Your task to perform on an android device: Show me popular games on the Play Store Image 0: 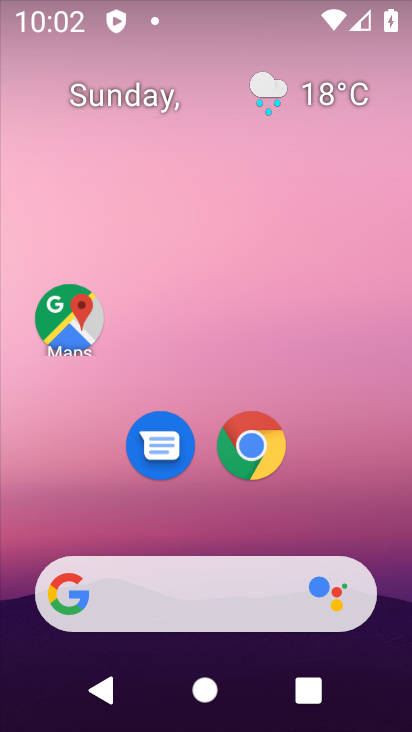
Step 0: press home button
Your task to perform on an android device: Show me popular games on the Play Store Image 1: 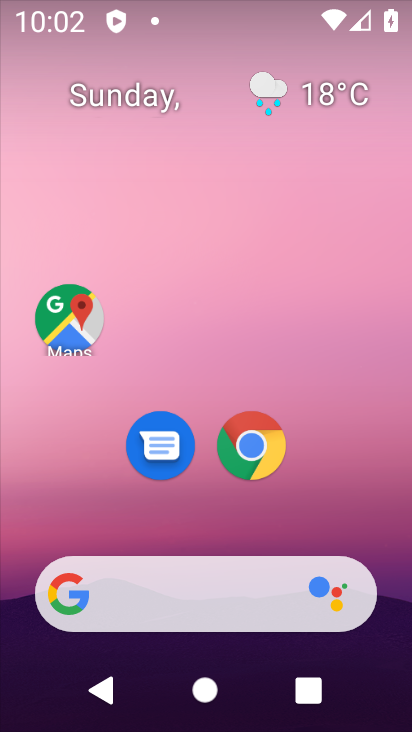
Step 1: drag from (204, 521) to (209, 12)
Your task to perform on an android device: Show me popular games on the Play Store Image 2: 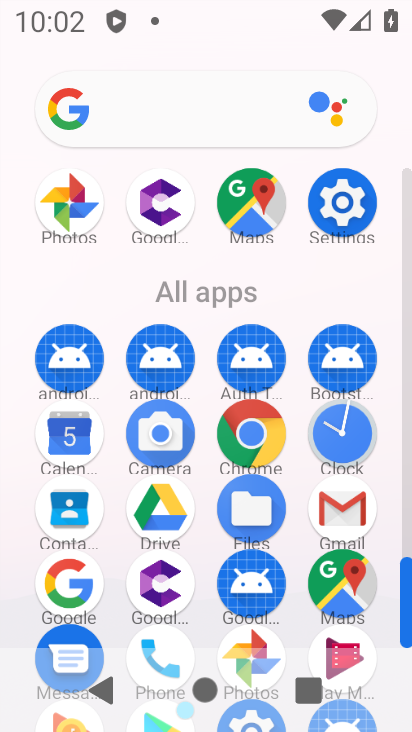
Step 2: drag from (205, 608) to (210, 217)
Your task to perform on an android device: Show me popular games on the Play Store Image 3: 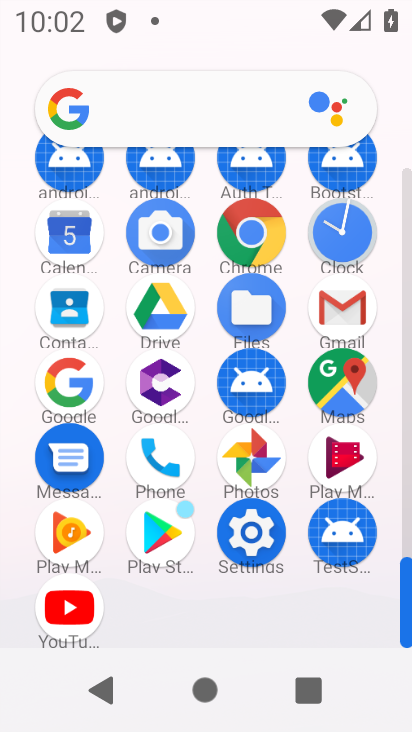
Step 3: click (141, 533)
Your task to perform on an android device: Show me popular games on the Play Store Image 4: 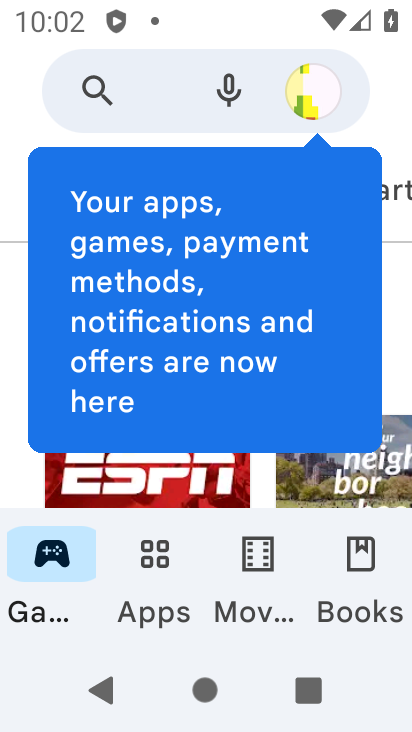
Step 4: drag from (44, 97) to (45, 0)
Your task to perform on an android device: Show me popular games on the Play Store Image 5: 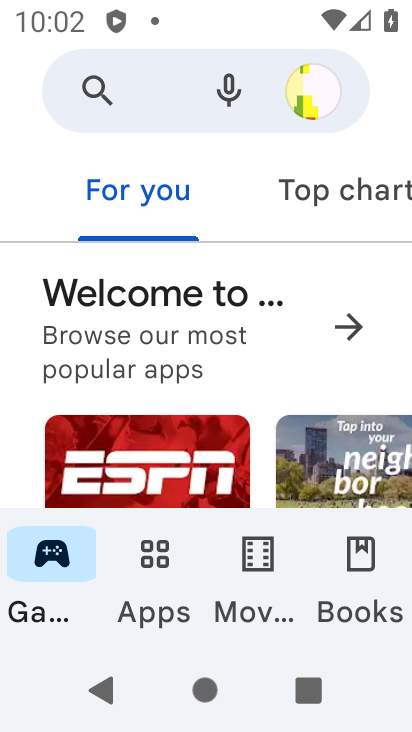
Step 5: drag from (248, 483) to (291, 34)
Your task to perform on an android device: Show me popular games on the Play Store Image 6: 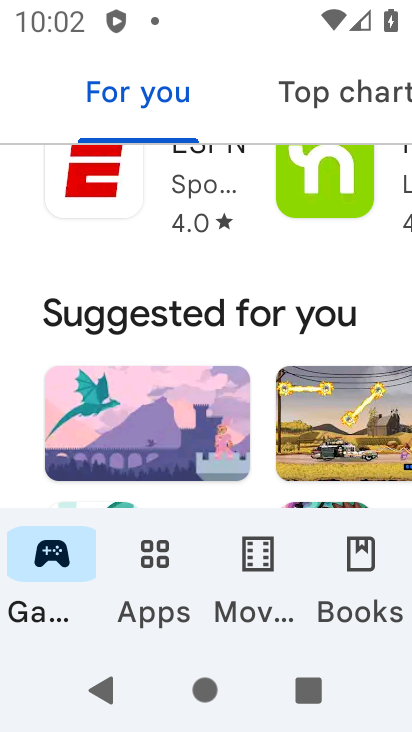
Step 6: drag from (253, 444) to (290, 84)
Your task to perform on an android device: Show me popular games on the Play Store Image 7: 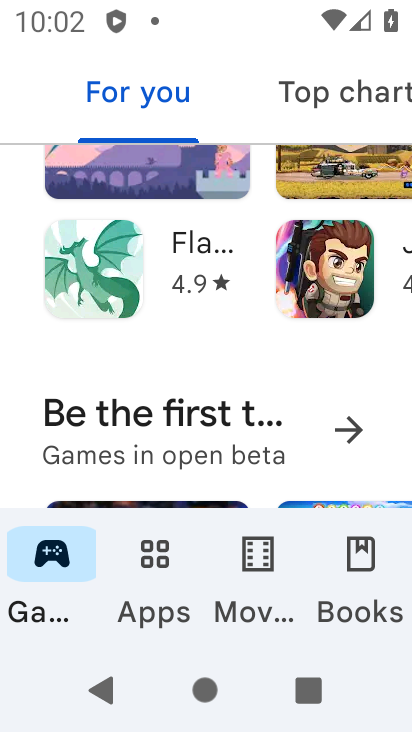
Step 7: drag from (227, 463) to (255, 52)
Your task to perform on an android device: Show me popular games on the Play Store Image 8: 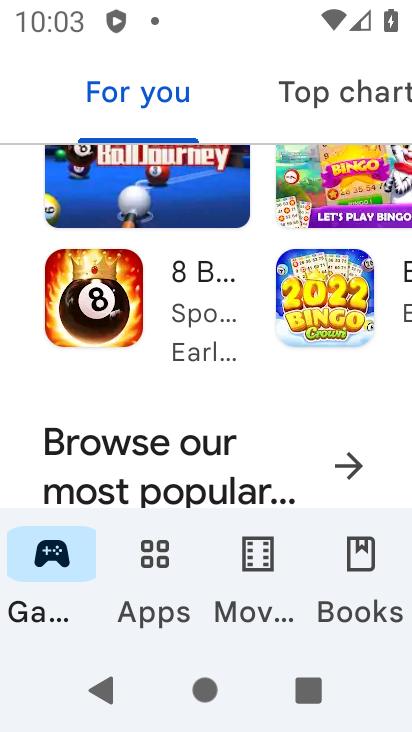
Step 8: click (333, 463)
Your task to perform on an android device: Show me popular games on the Play Store Image 9: 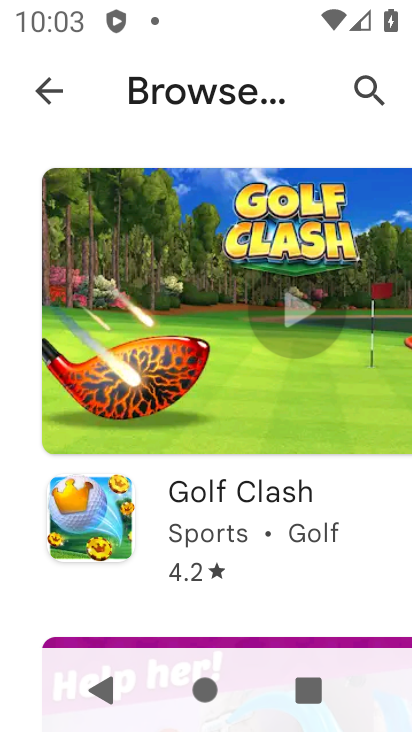
Step 9: task complete